Your task to perform on an android device: Open the phone app and click the voicemail tab. Image 0: 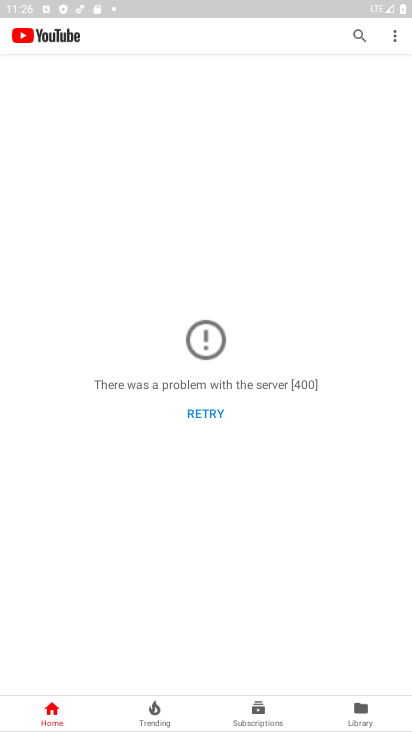
Step 0: press home button
Your task to perform on an android device: Open the phone app and click the voicemail tab. Image 1: 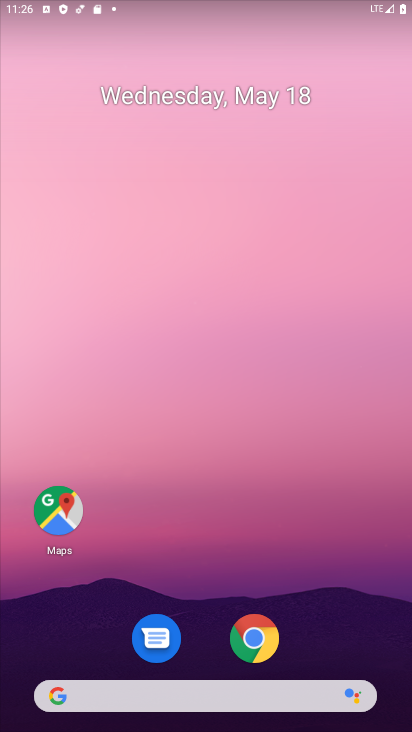
Step 1: drag from (342, 642) to (315, 136)
Your task to perform on an android device: Open the phone app and click the voicemail tab. Image 2: 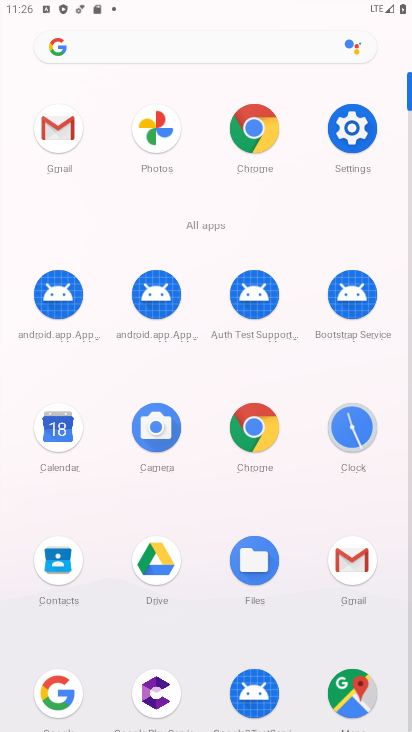
Step 2: drag from (184, 620) to (180, 238)
Your task to perform on an android device: Open the phone app and click the voicemail tab. Image 3: 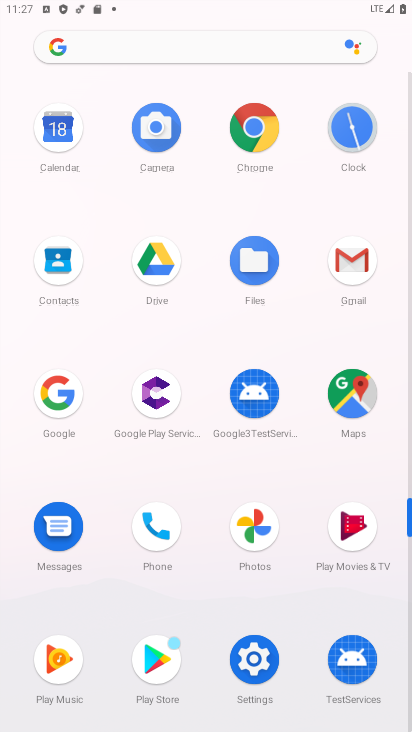
Step 3: click (159, 520)
Your task to perform on an android device: Open the phone app and click the voicemail tab. Image 4: 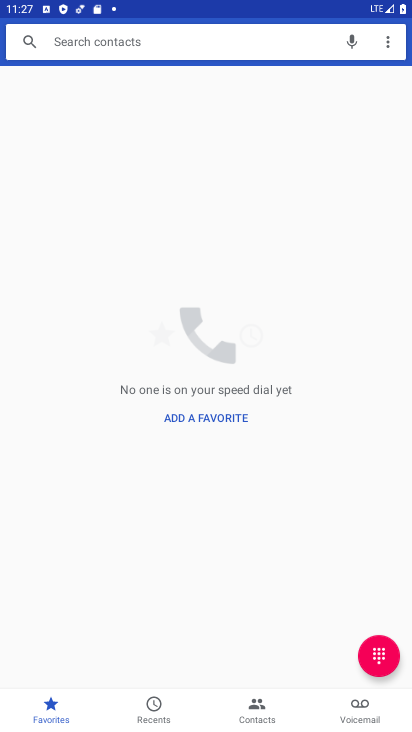
Step 4: click (360, 707)
Your task to perform on an android device: Open the phone app and click the voicemail tab. Image 5: 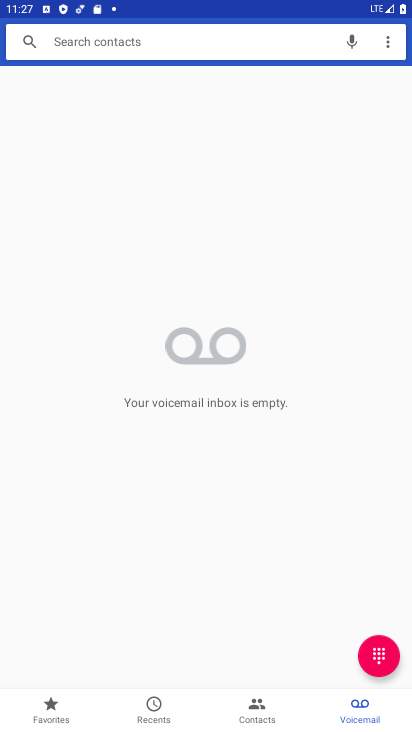
Step 5: task complete